Your task to perform on an android device: search for starred emails in the gmail app Image 0: 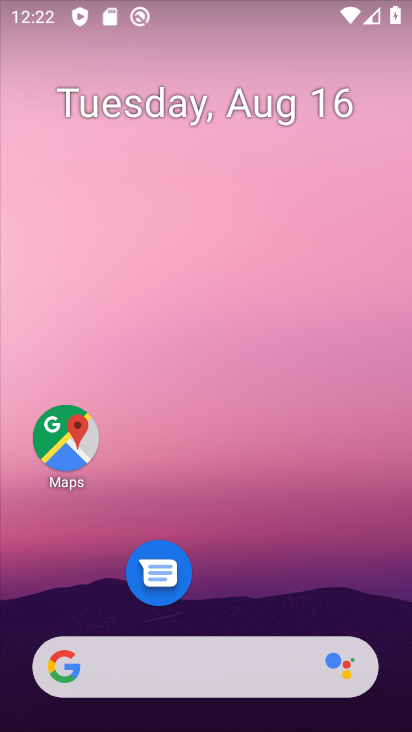
Step 0: drag from (234, 636) to (375, 578)
Your task to perform on an android device: search for starred emails in the gmail app Image 1: 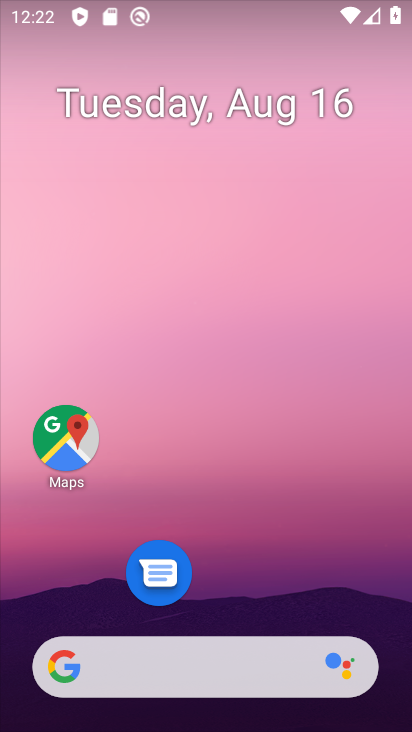
Step 1: drag from (160, 488) to (129, 52)
Your task to perform on an android device: search for starred emails in the gmail app Image 2: 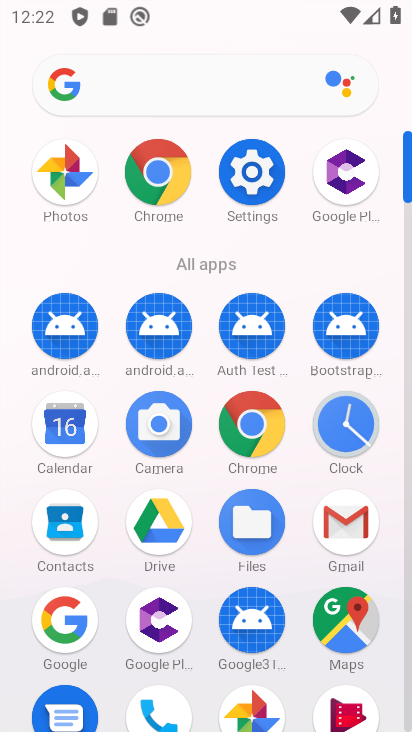
Step 2: click (334, 521)
Your task to perform on an android device: search for starred emails in the gmail app Image 3: 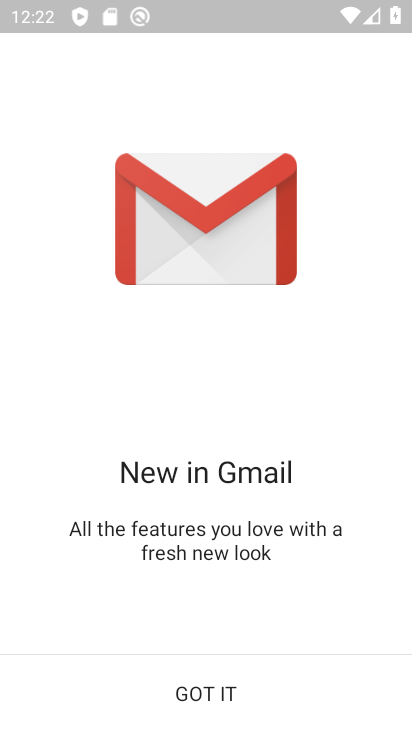
Step 3: click (193, 673)
Your task to perform on an android device: search for starred emails in the gmail app Image 4: 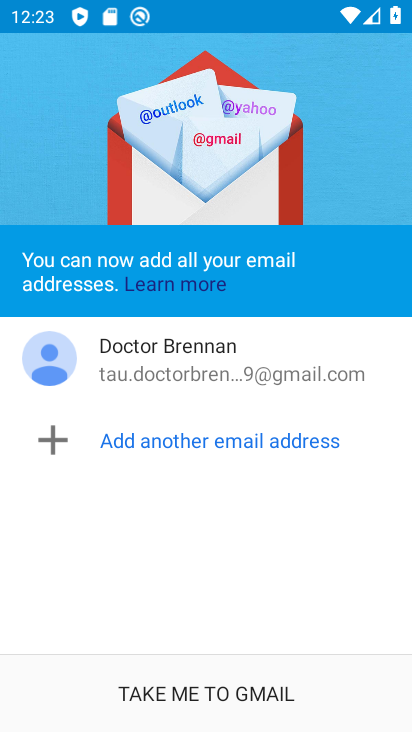
Step 4: click (203, 689)
Your task to perform on an android device: search for starred emails in the gmail app Image 5: 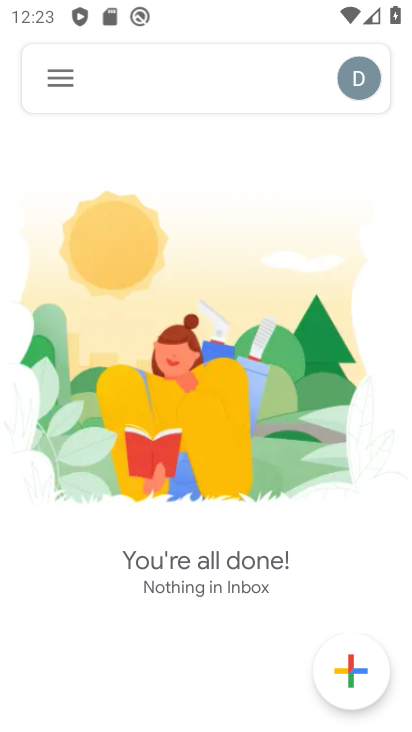
Step 5: click (65, 77)
Your task to perform on an android device: search for starred emails in the gmail app Image 6: 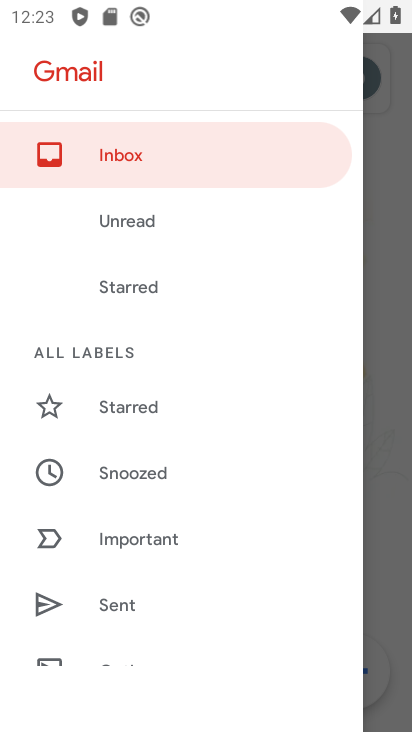
Step 6: drag from (155, 511) to (123, 361)
Your task to perform on an android device: search for starred emails in the gmail app Image 7: 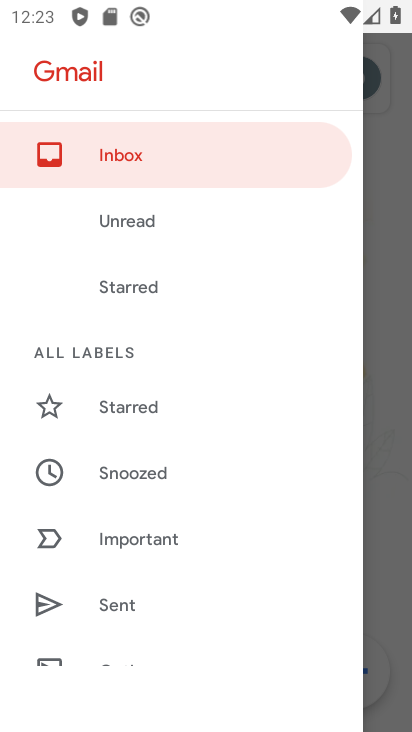
Step 7: click (153, 403)
Your task to perform on an android device: search for starred emails in the gmail app Image 8: 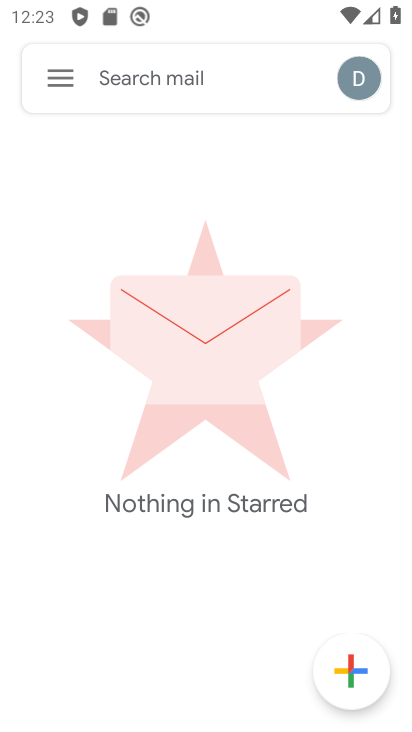
Step 8: task complete